Your task to perform on an android device: open sync settings in chrome Image 0: 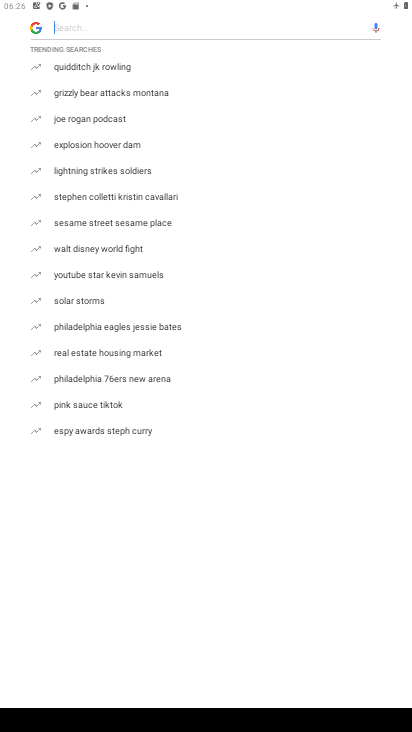
Step 0: press home button
Your task to perform on an android device: open sync settings in chrome Image 1: 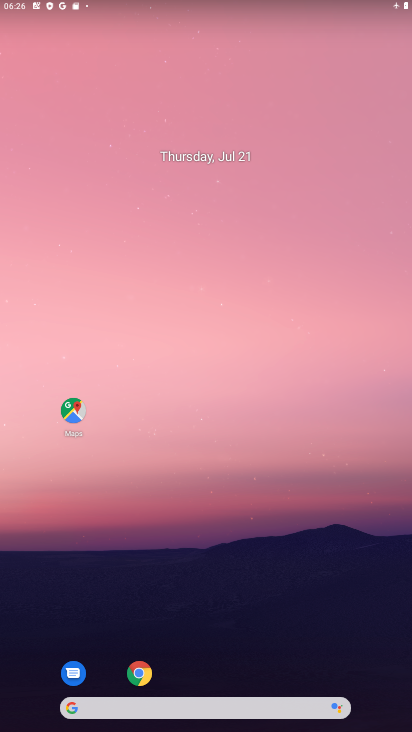
Step 1: click (140, 671)
Your task to perform on an android device: open sync settings in chrome Image 2: 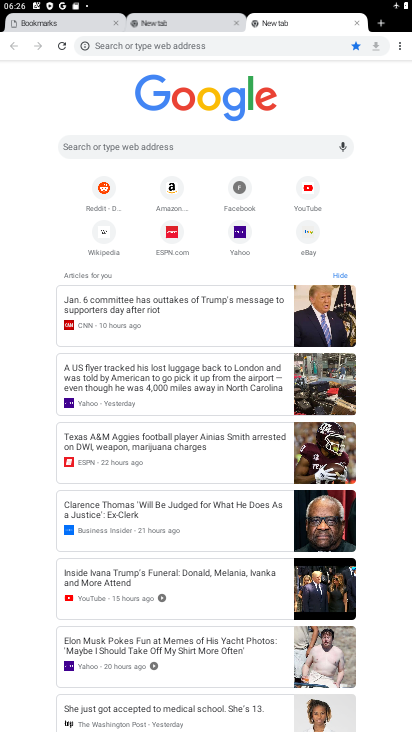
Step 2: click (398, 38)
Your task to perform on an android device: open sync settings in chrome Image 3: 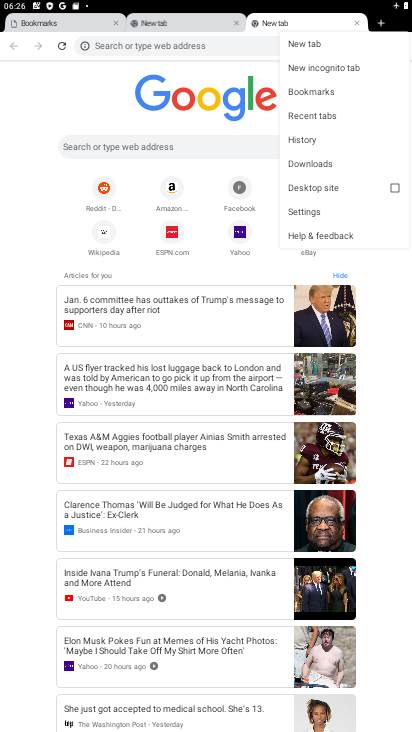
Step 3: click (311, 216)
Your task to perform on an android device: open sync settings in chrome Image 4: 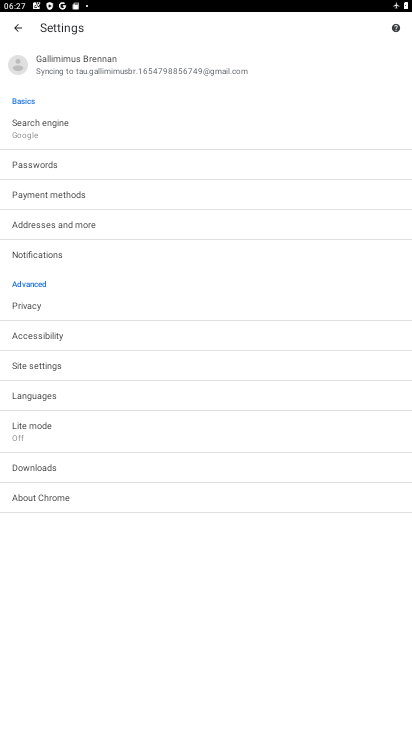
Step 4: click (142, 53)
Your task to perform on an android device: open sync settings in chrome Image 5: 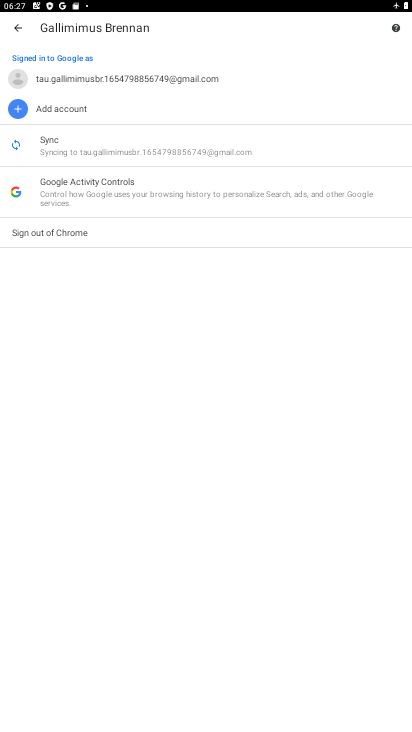
Step 5: click (125, 144)
Your task to perform on an android device: open sync settings in chrome Image 6: 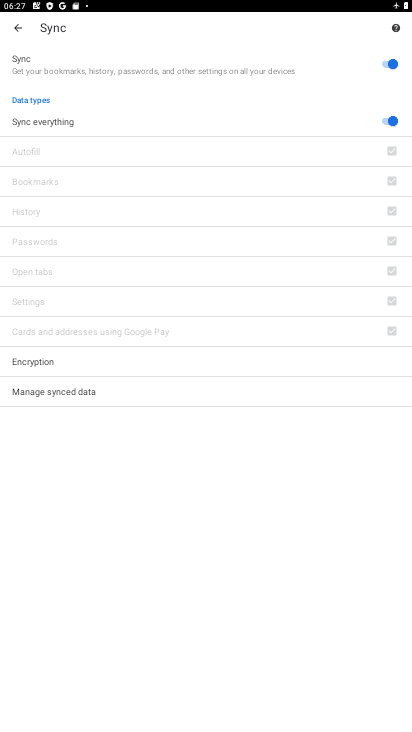
Step 6: task complete